Your task to perform on an android device: show emergency info Image 0: 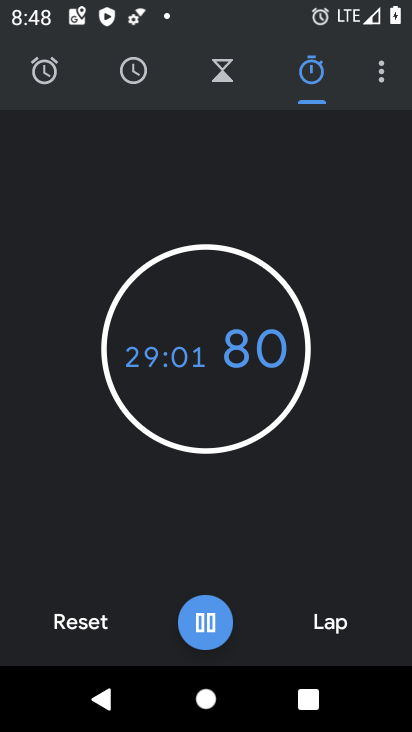
Step 0: press home button
Your task to perform on an android device: show emergency info Image 1: 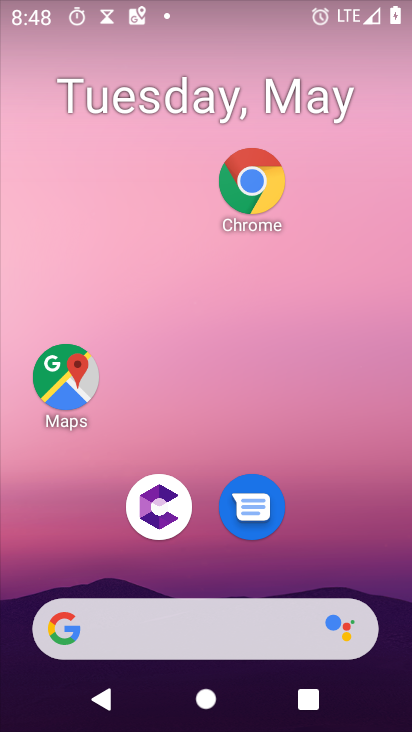
Step 1: drag from (272, 548) to (333, 121)
Your task to perform on an android device: show emergency info Image 2: 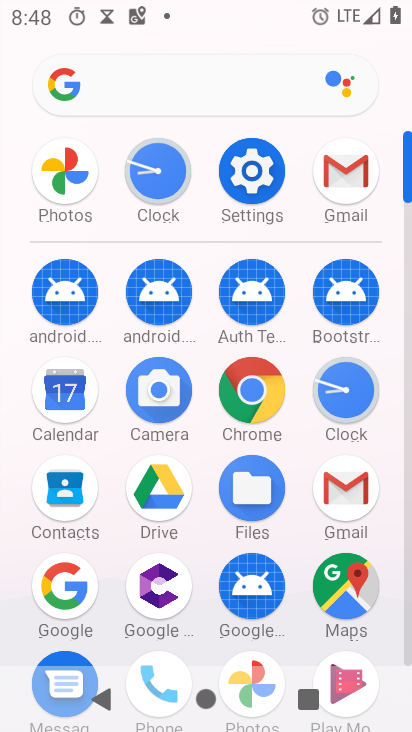
Step 2: click (261, 181)
Your task to perform on an android device: show emergency info Image 3: 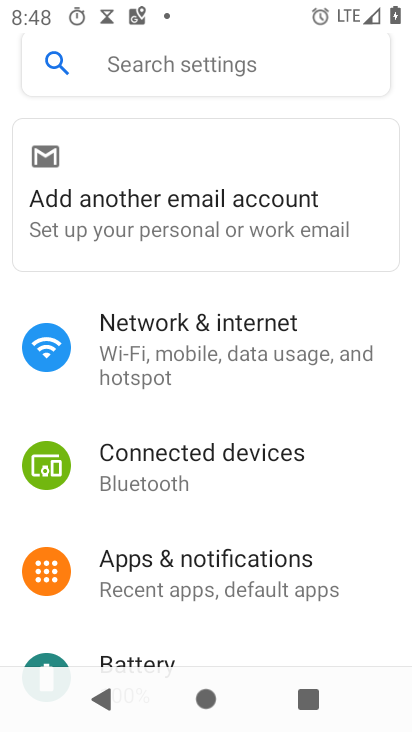
Step 3: drag from (231, 620) to (271, 315)
Your task to perform on an android device: show emergency info Image 4: 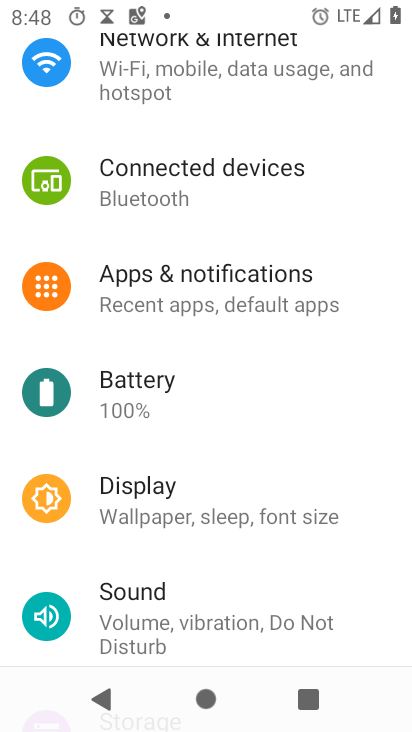
Step 4: drag from (277, 576) to (304, 324)
Your task to perform on an android device: show emergency info Image 5: 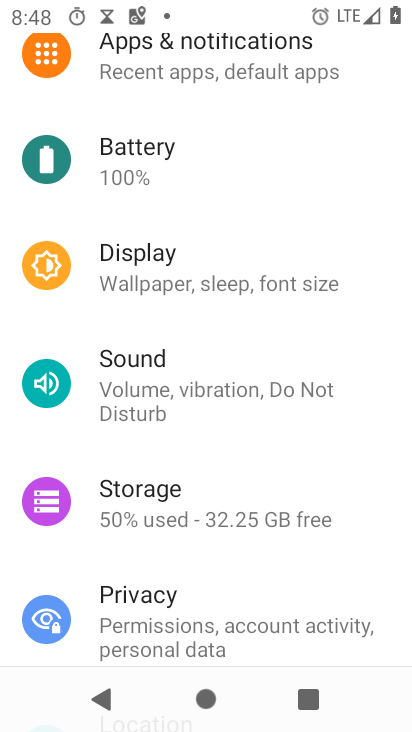
Step 5: drag from (305, 565) to (306, 393)
Your task to perform on an android device: show emergency info Image 6: 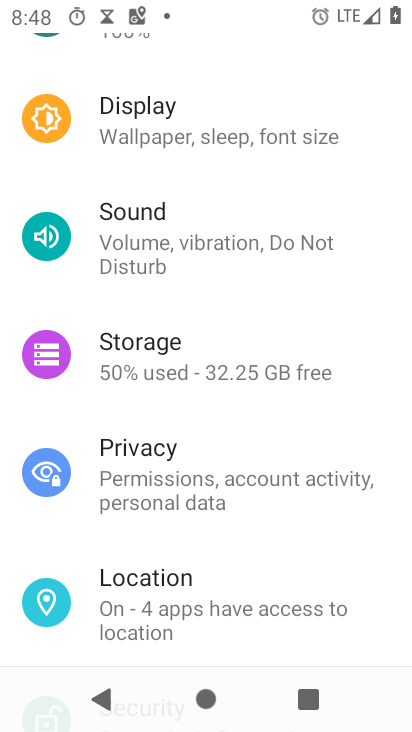
Step 6: drag from (292, 560) to (294, 329)
Your task to perform on an android device: show emergency info Image 7: 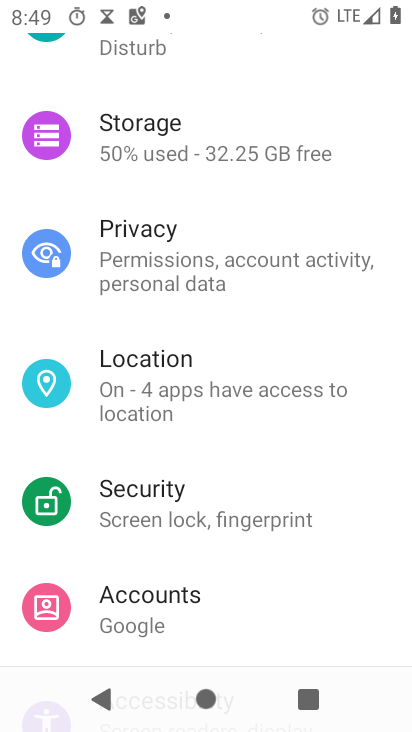
Step 7: drag from (250, 528) to (261, 350)
Your task to perform on an android device: show emergency info Image 8: 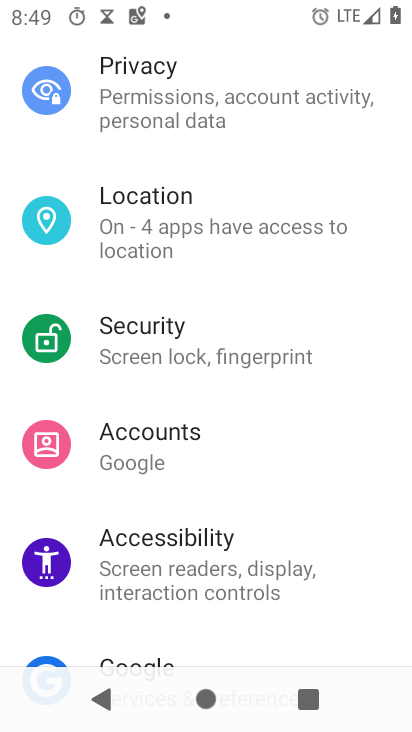
Step 8: drag from (236, 464) to (280, 275)
Your task to perform on an android device: show emergency info Image 9: 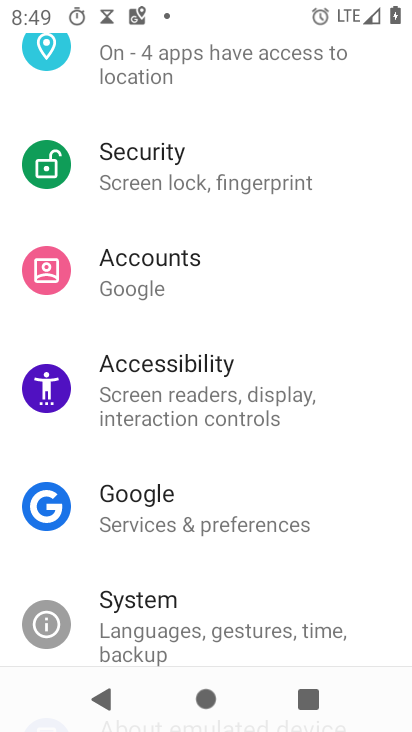
Step 9: drag from (266, 599) to (266, 366)
Your task to perform on an android device: show emergency info Image 10: 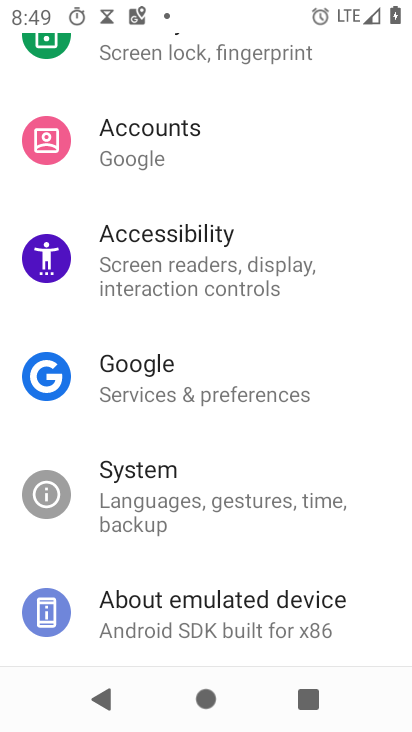
Step 10: click (232, 599)
Your task to perform on an android device: show emergency info Image 11: 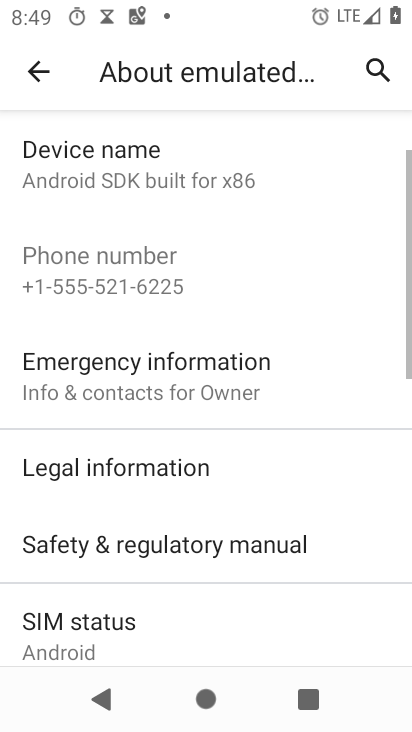
Step 11: click (198, 378)
Your task to perform on an android device: show emergency info Image 12: 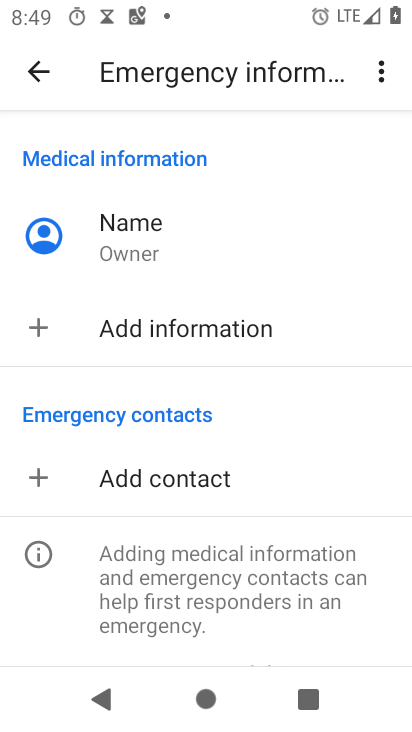
Step 12: task complete